Your task to perform on an android device: Turn off the flashlight Image 0: 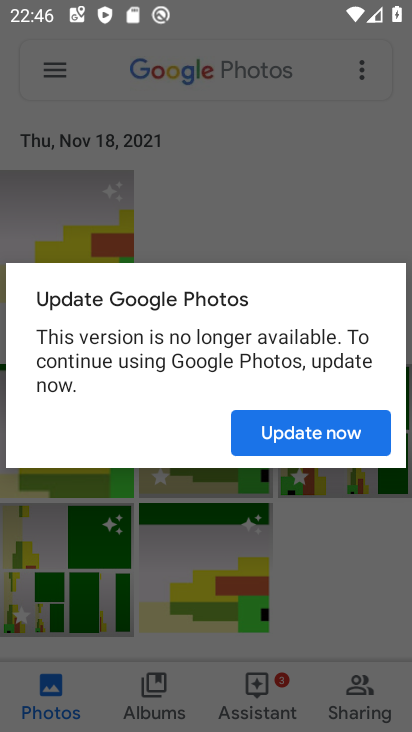
Step 0: press home button
Your task to perform on an android device: Turn off the flashlight Image 1: 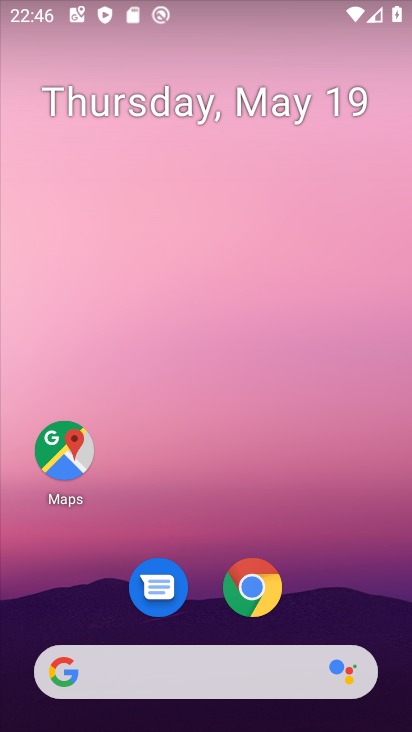
Step 1: drag from (221, 703) to (197, 253)
Your task to perform on an android device: Turn off the flashlight Image 2: 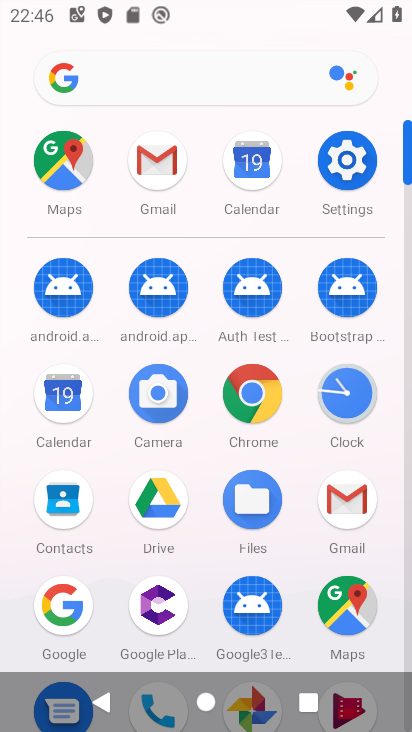
Step 2: click (337, 162)
Your task to perform on an android device: Turn off the flashlight Image 3: 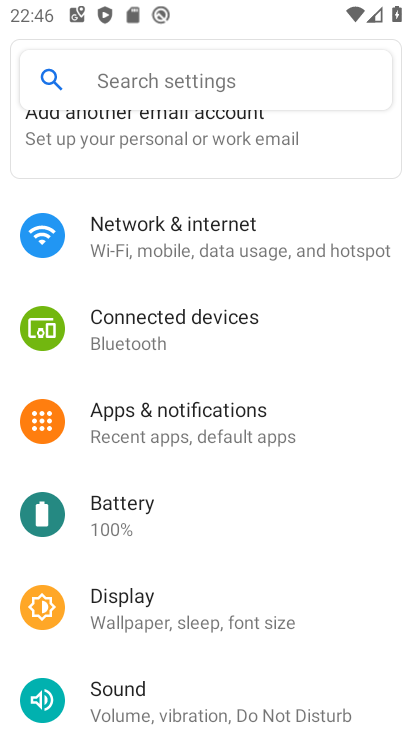
Step 3: click (130, 86)
Your task to perform on an android device: Turn off the flashlight Image 4: 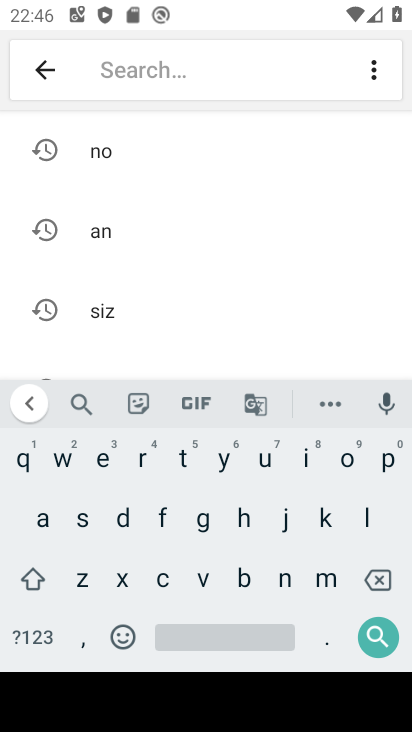
Step 4: click (160, 517)
Your task to perform on an android device: Turn off the flashlight Image 5: 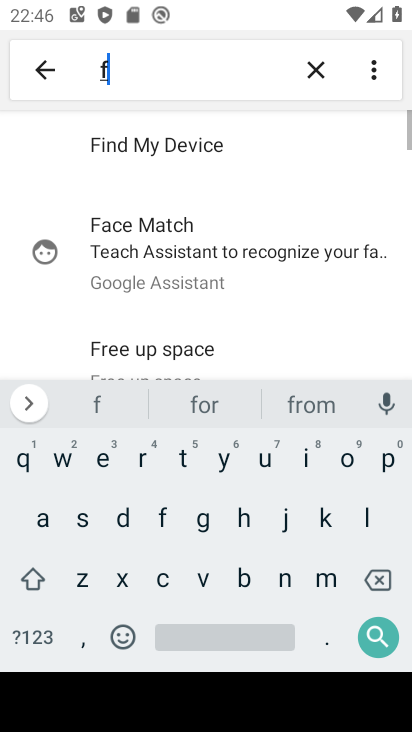
Step 5: click (363, 512)
Your task to perform on an android device: Turn off the flashlight Image 6: 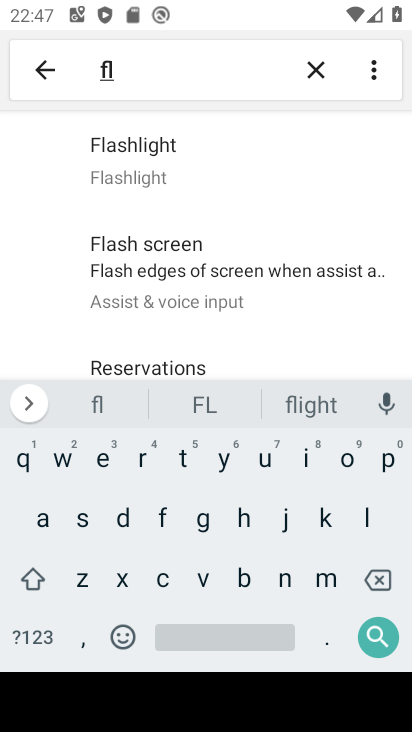
Step 6: click (168, 164)
Your task to perform on an android device: Turn off the flashlight Image 7: 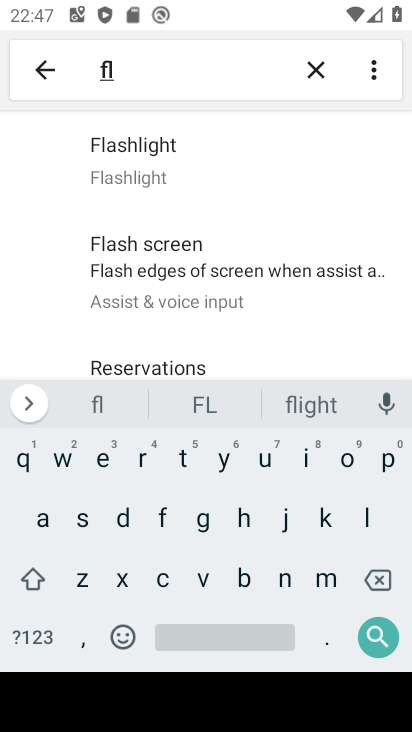
Step 7: click (196, 184)
Your task to perform on an android device: Turn off the flashlight Image 8: 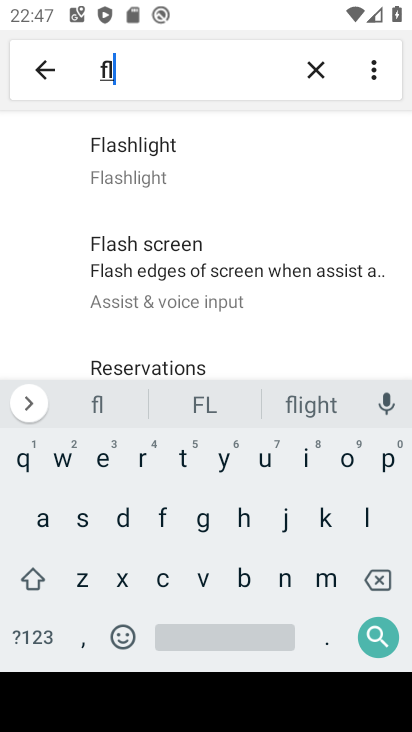
Step 8: task complete